Your task to perform on an android device: open wifi settings Image 0: 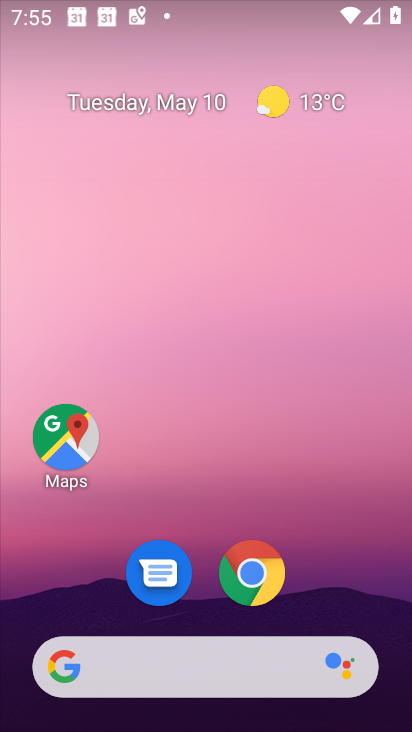
Step 0: drag from (366, 586) to (313, 1)
Your task to perform on an android device: open wifi settings Image 1: 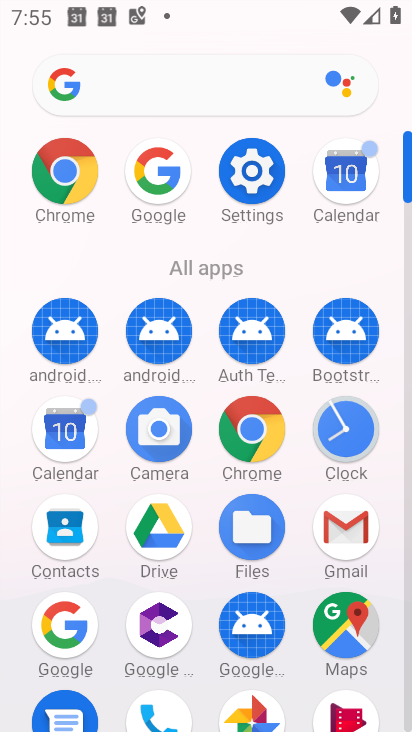
Step 1: click (251, 169)
Your task to perform on an android device: open wifi settings Image 2: 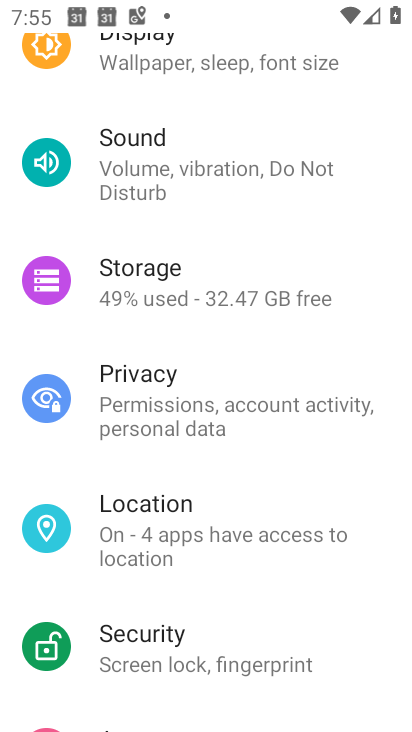
Step 2: drag from (370, 150) to (379, 527)
Your task to perform on an android device: open wifi settings Image 3: 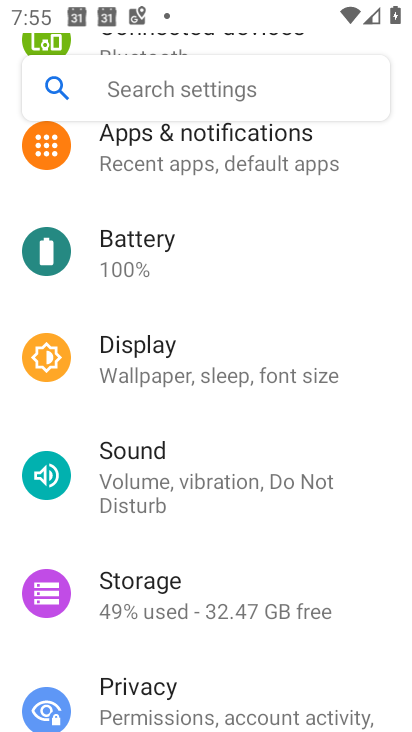
Step 3: drag from (365, 277) to (344, 643)
Your task to perform on an android device: open wifi settings Image 4: 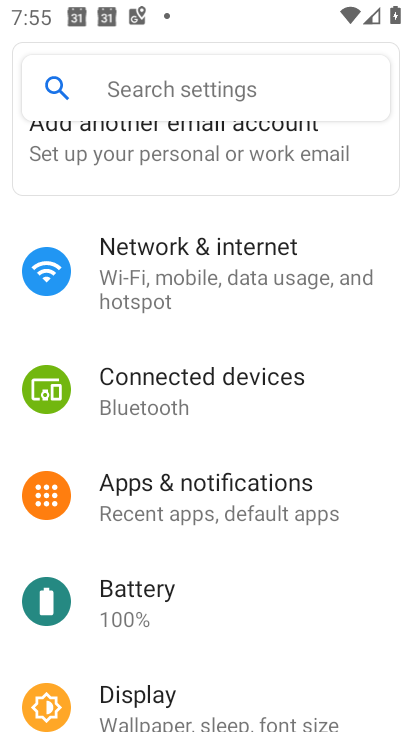
Step 4: click (165, 280)
Your task to perform on an android device: open wifi settings Image 5: 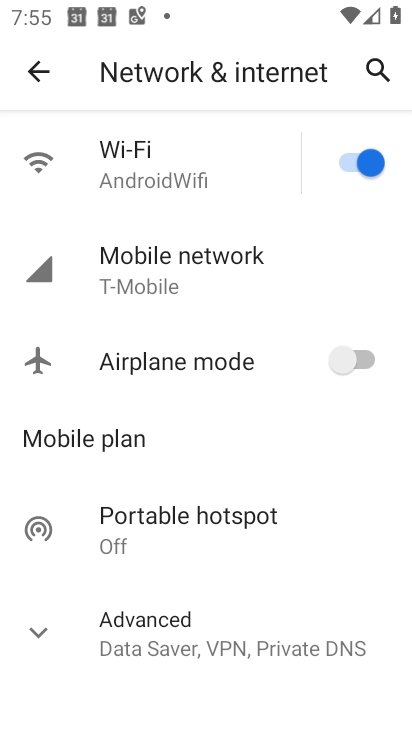
Step 5: click (108, 152)
Your task to perform on an android device: open wifi settings Image 6: 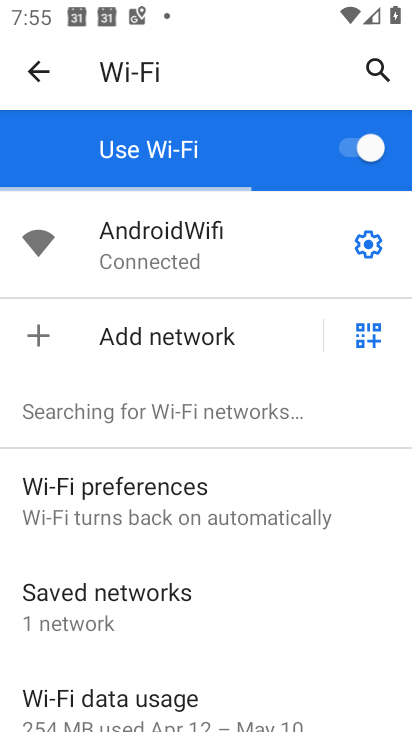
Step 6: task complete